Your task to perform on an android device: open chrome and create a bookmark for the current page Image 0: 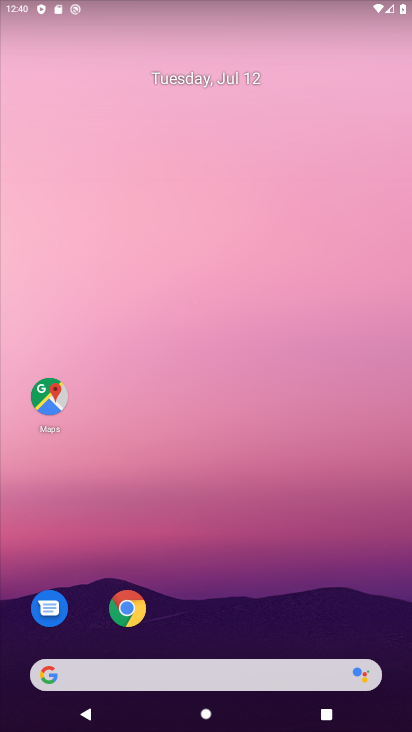
Step 0: drag from (257, 221) to (221, 19)
Your task to perform on an android device: open chrome and create a bookmark for the current page Image 1: 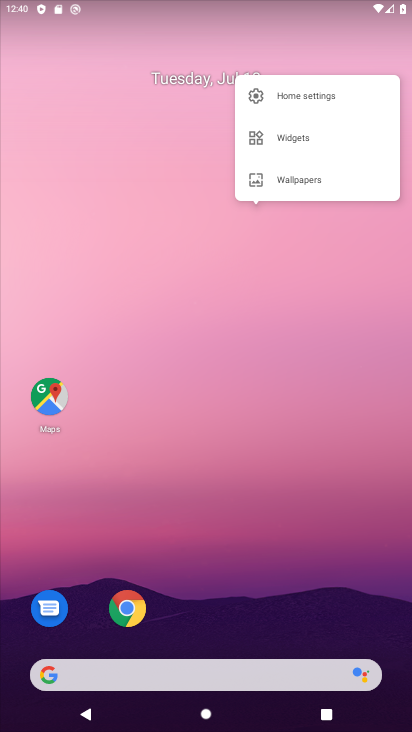
Step 1: click (137, 606)
Your task to perform on an android device: open chrome and create a bookmark for the current page Image 2: 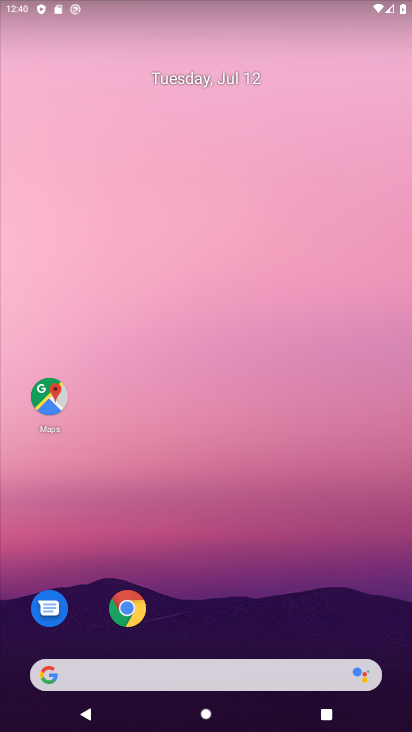
Step 2: click (132, 608)
Your task to perform on an android device: open chrome and create a bookmark for the current page Image 3: 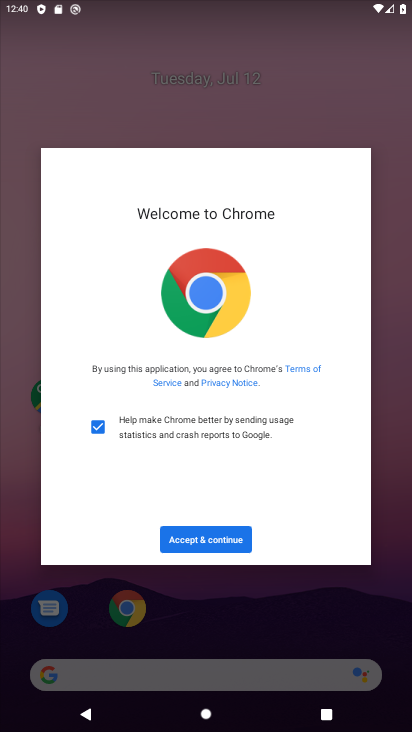
Step 3: click (230, 540)
Your task to perform on an android device: open chrome and create a bookmark for the current page Image 4: 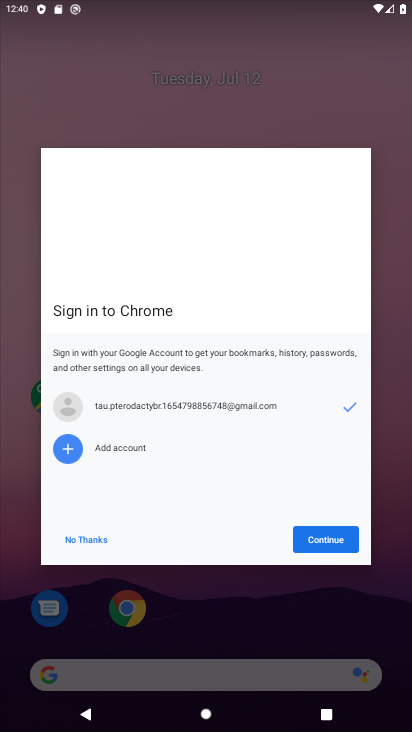
Step 4: click (306, 538)
Your task to perform on an android device: open chrome and create a bookmark for the current page Image 5: 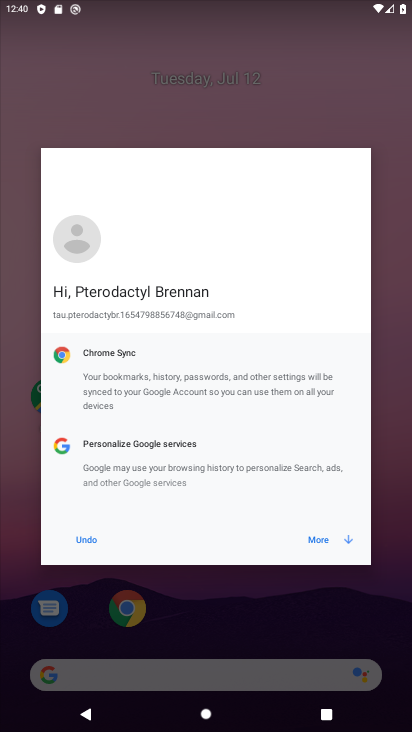
Step 5: click (323, 542)
Your task to perform on an android device: open chrome and create a bookmark for the current page Image 6: 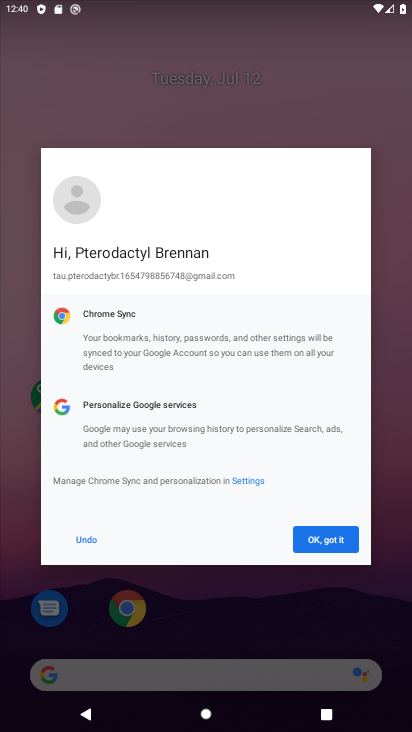
Step 6: click (323, 531)
Your task to perform on an android device: open chrome and create a bookmark for the current page Image 7: 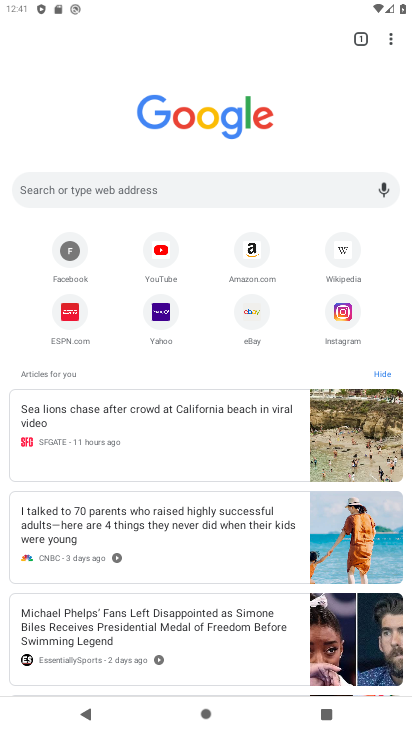
Step 7: click (392, 42)
Your task to perform on an android device: open chrome and create a bookmark for the current page Image 8: 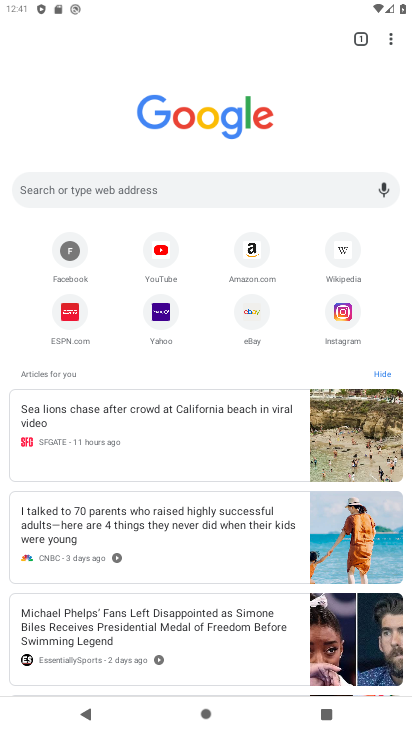
Step 8: click (392, 42)
Your task to perform on an android device: open chrome and create a bookmark for the current page Image 9: 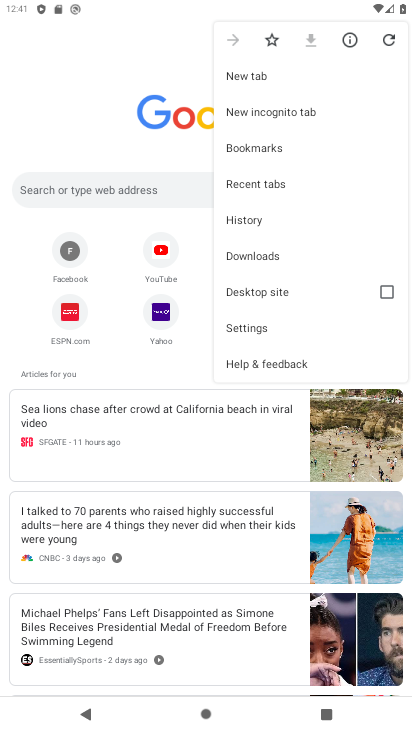
Step 9: click (277, 36)
Your task to perform on an android device: open chrome and create a bookmark for the current page Image 10: 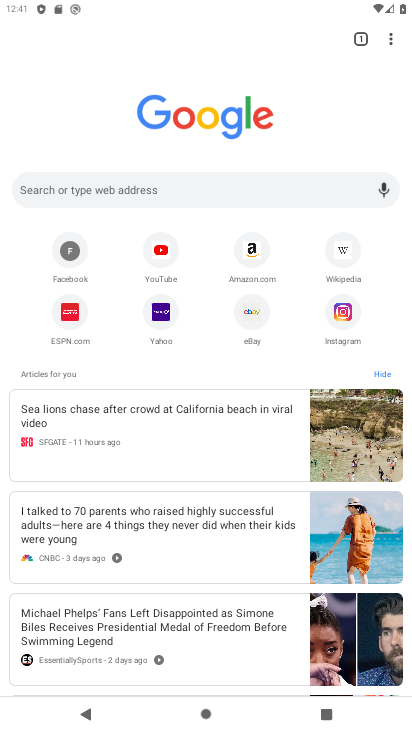
Step 10: task complete